Your task to perform on an android device: Go to battery settings Image 0: 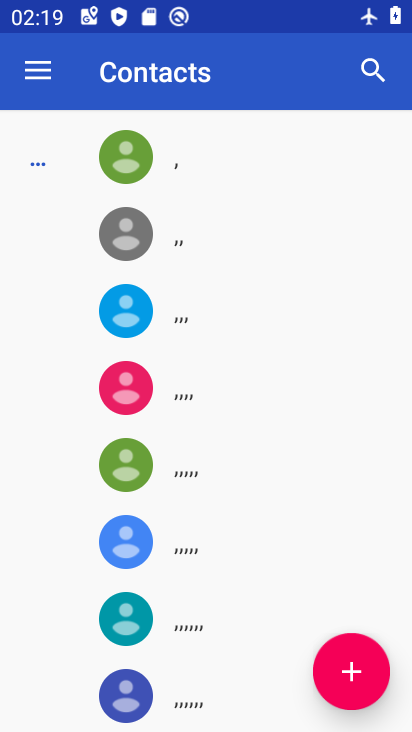
Step 0: press home button
Your task to perform on an android device: Go to battery settings Image 1: 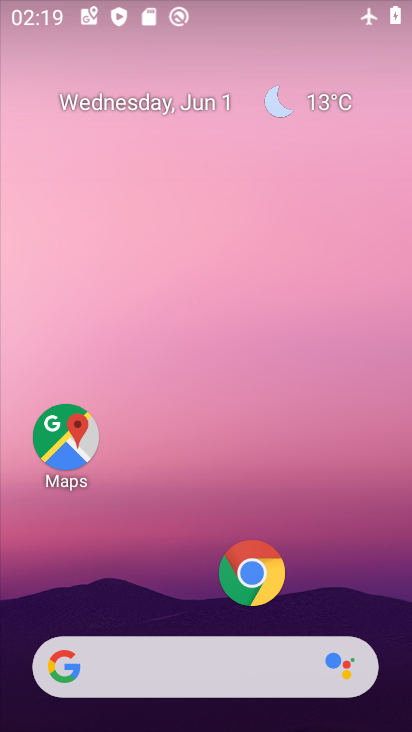
Step 1: drag from (253, 652) to (174, 59)
Your task to perform on an android device: Go to battery settings Image 2: 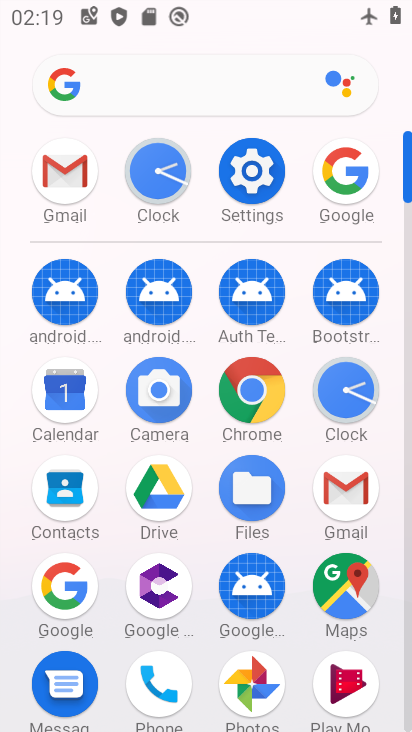
Step 2: click (273, 170)
Your task to perform on an android device: Go to battery settings Image 3: 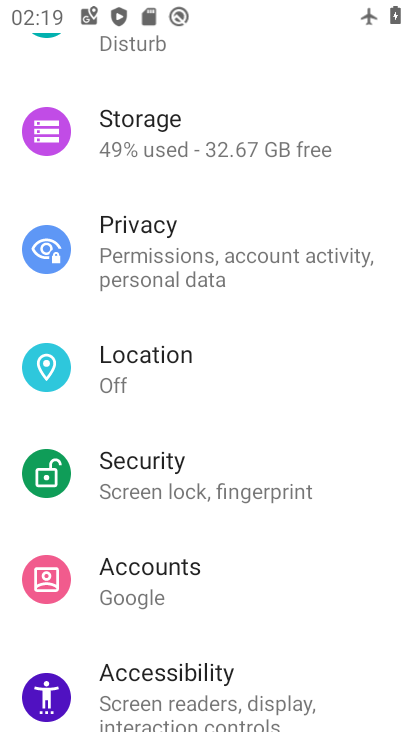
Step 3: drag from (196, 293) to (168, 650)
Your task to perform on an android device: Go to battery settings Image 4: 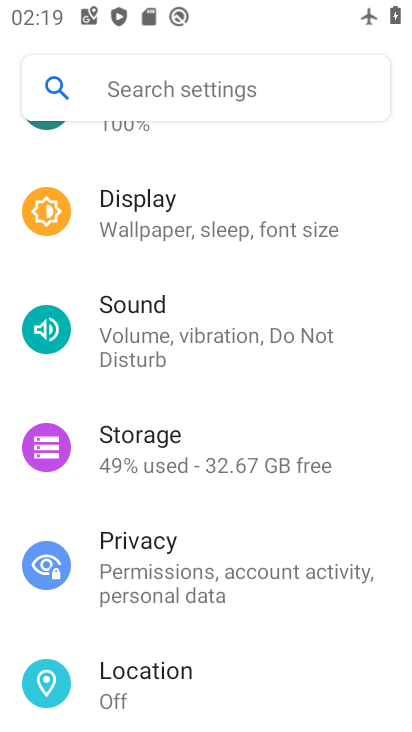
Step 4: drag from (140, 186) to (70, 555)
Your task to perform on an android device: Go to battery settings Image 5: 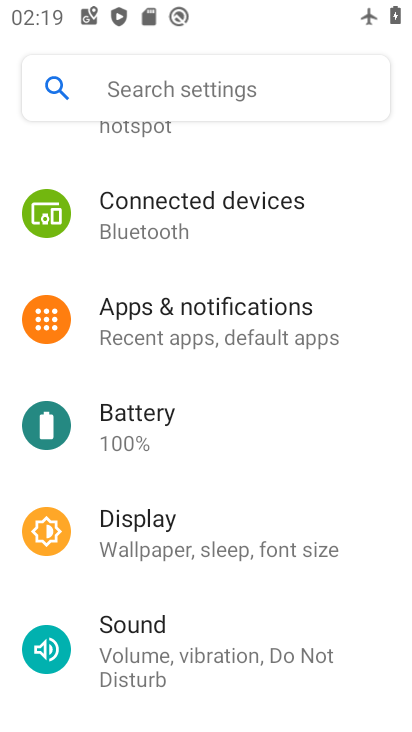
Step 5: click (91, 407)
Your task to perform on an android device: Go to battery settings Image 6: 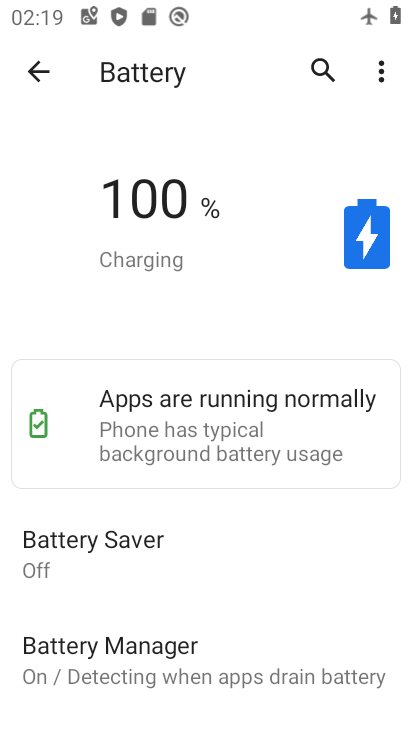
Step 6: task complete